Your task to perform on an android device: Open calendar and show me the second week of next month Image 0: 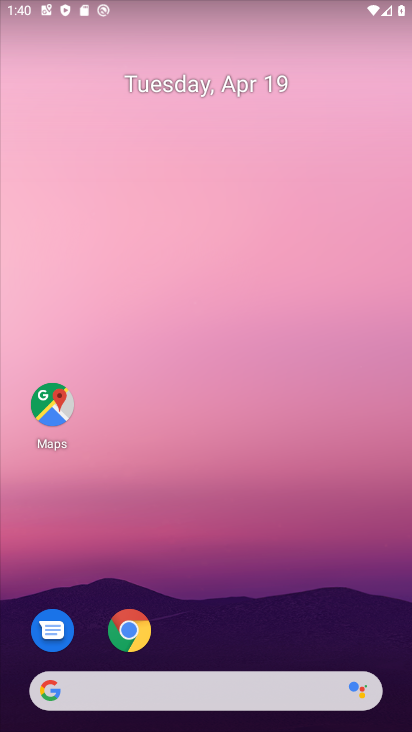
Step 0: drag from (257, 619) to (244, 148)
Your task to perform on an android device: Open calendar and show me the second week of next month Image 1: 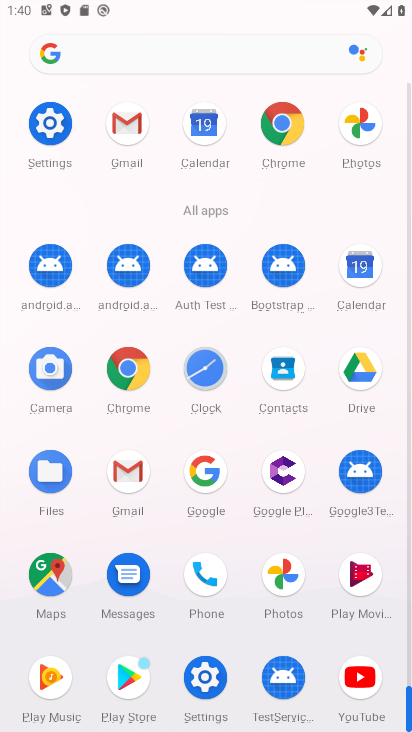
Step 1: click (364, 273)
Your task to perform on an android device: Open calendar and show me the second week of next month Image 2: 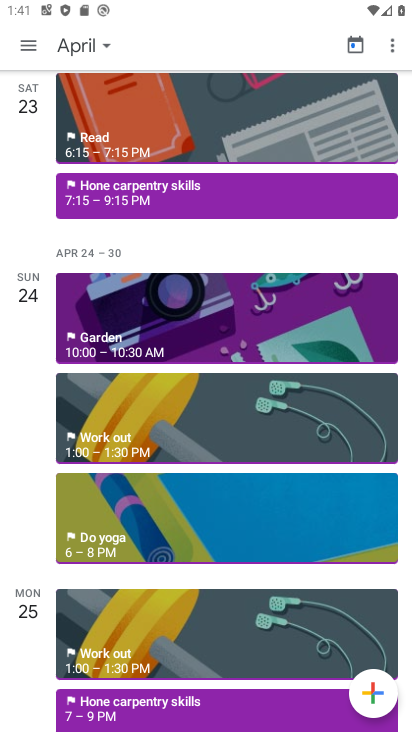
Step 2: click (76, 37)
Your task to perform on an android device: Open calendar and show me the second week of next month Image 3: 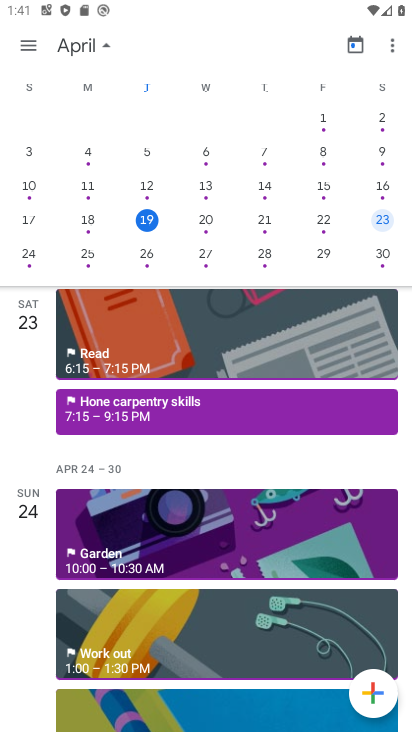
Step 3: click (13, 155)
Your task to perform on an android device: Open calendar and show me the second week of next month Image 4: 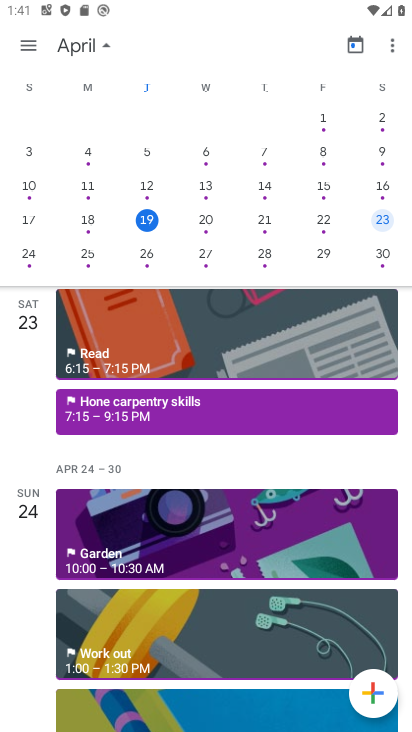
Step 4: drag from (47, 189) to (10, 154)
Your task to perform on an android device: Open calendar and show me the second week of next month Image 5: 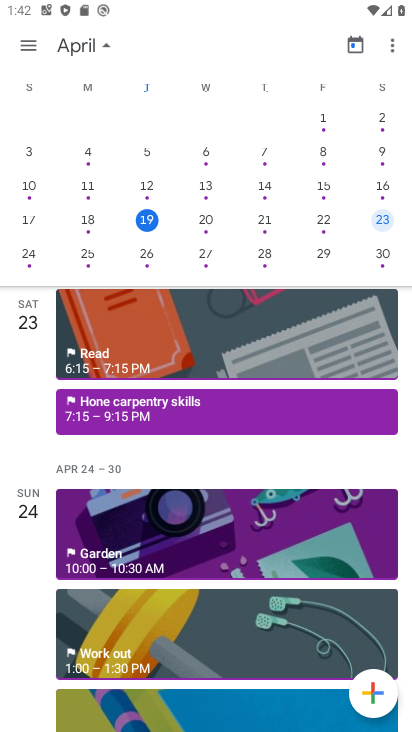
Step 5: drag from (371, 193) to (0, 146)
Your task to perform on an android device: Open calendar and show me the second week of next month Image 6: 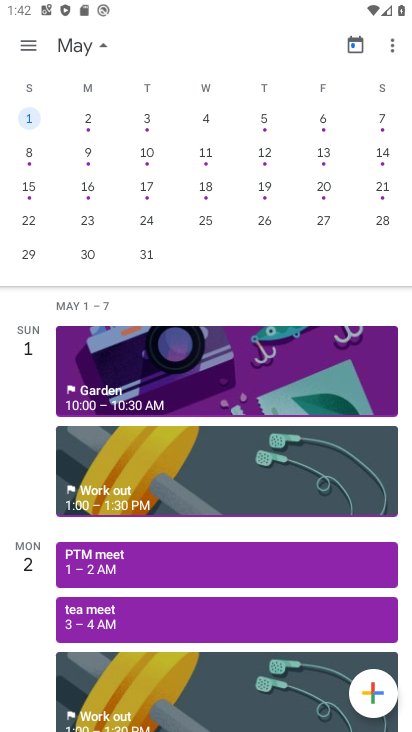
Step 6: click (30, 148)
Your task to perform on an android device: Open calendar and show me the second week of next month Image 7: 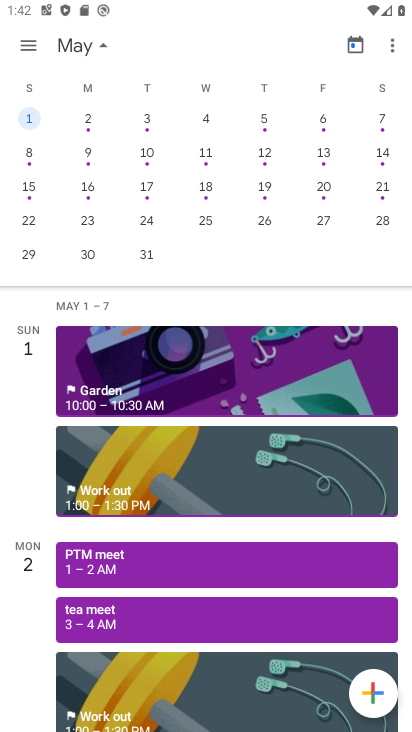
Step 7: click (83, 161)
Your task to perform on an android device: Open calendar and show me the second week of next month Image 8: 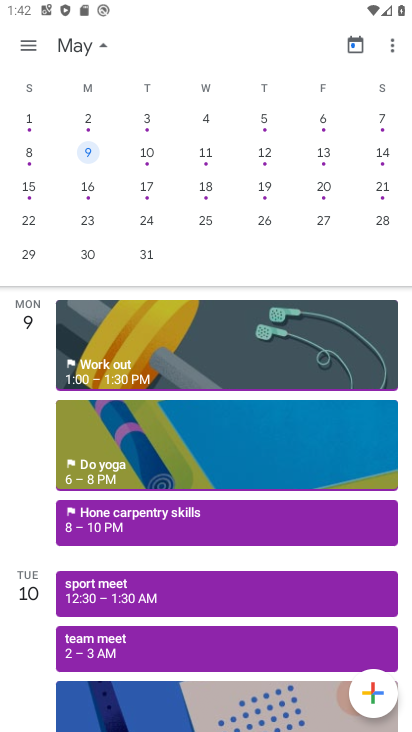
Step 8: click (31, 42)
Your task to perform on an android device: Open calendar and show me the second week of next month Image 9: 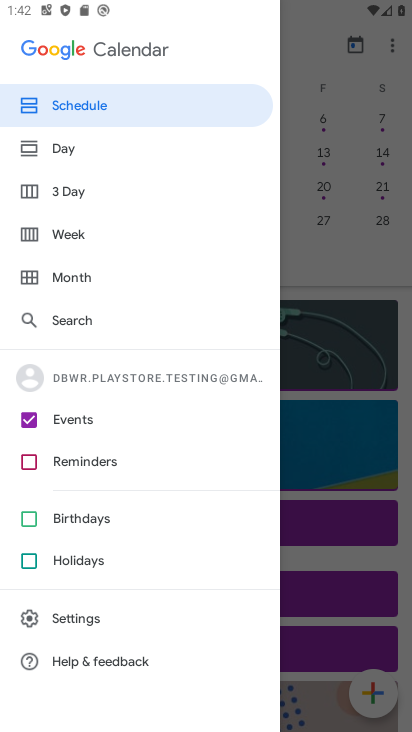
Step 9: click (81, 234)
Your task to perform on an android device: Open calendar and show me the second week of next month Image 10: 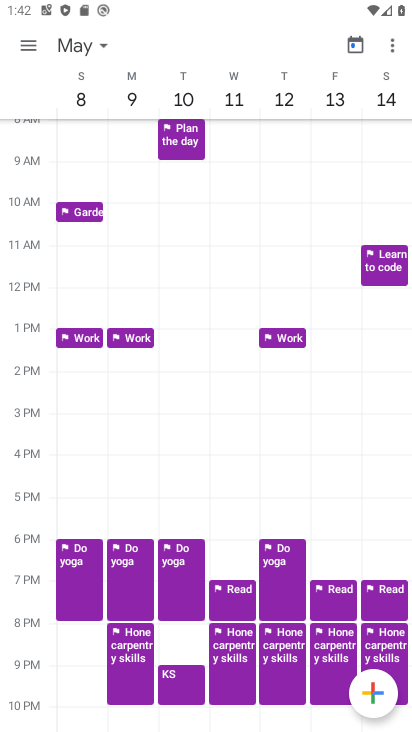
Step 10: task complete